Your task to perform on an android device: delete location history Image 0: 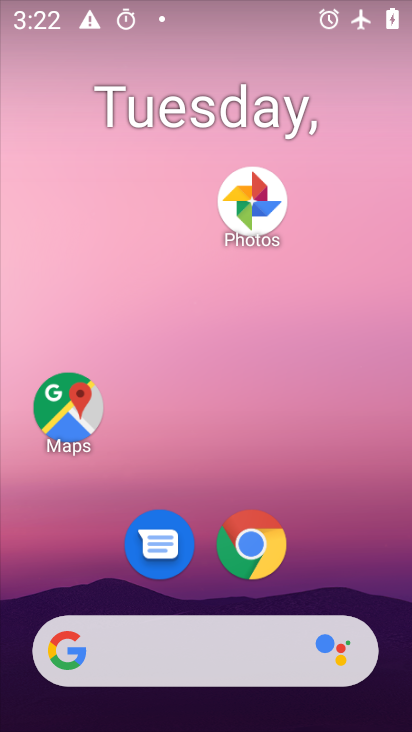
Step 0: drag from (332, 522) to (320, 58)
Your task to perform on an android device: delete location history Image 1: 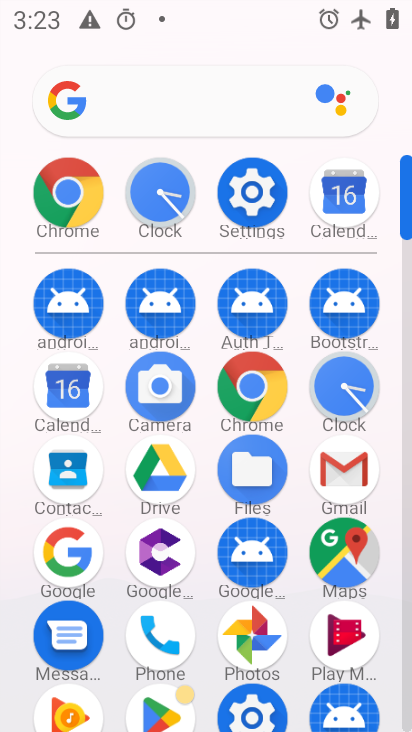
Step 1: click (344, 544)
Your task to perform on an android device: delete location history Image 2: 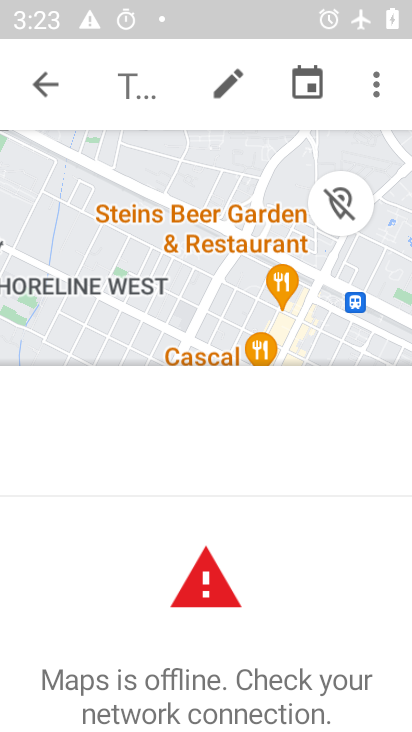
Step 2: click (52, 83)
Your task to perform on an android device: delete location history Image 3: 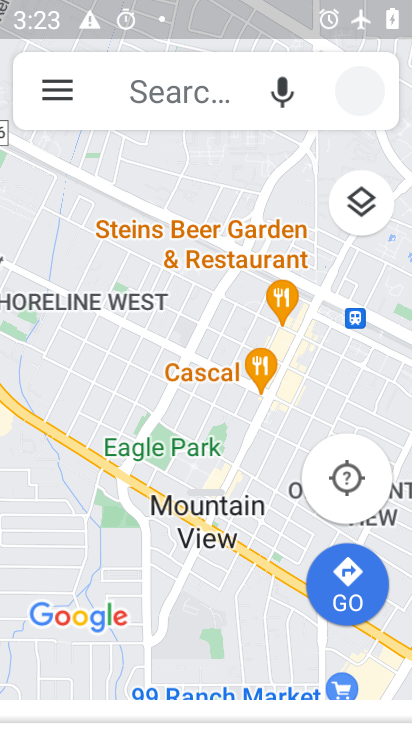
Step 3: click (52, 83)
Your task to perform on an android device: delete location history Image 4: 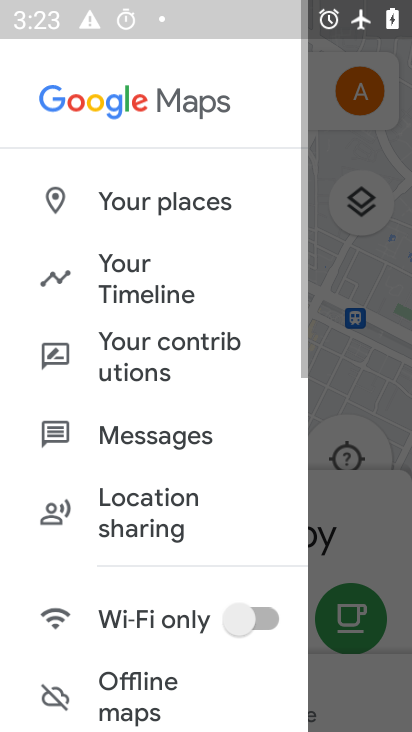
Step 4: drag from (135, 642) to (172, 184)
Your task to perform on an android device: delete location history Image 5: 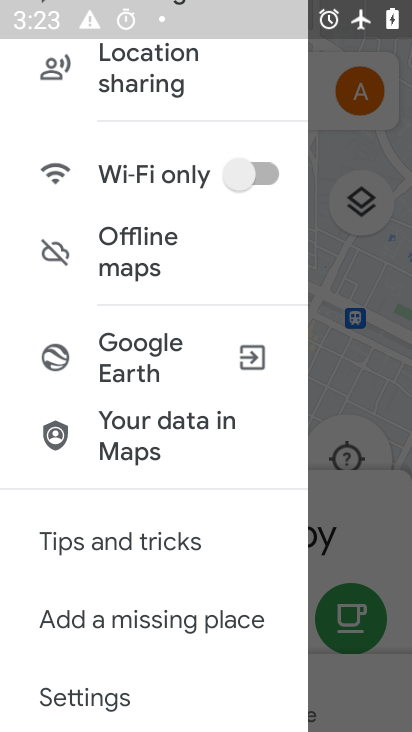
Step 5: click (114, 696)
Your task to perform on an android device: delete location history Image 6: 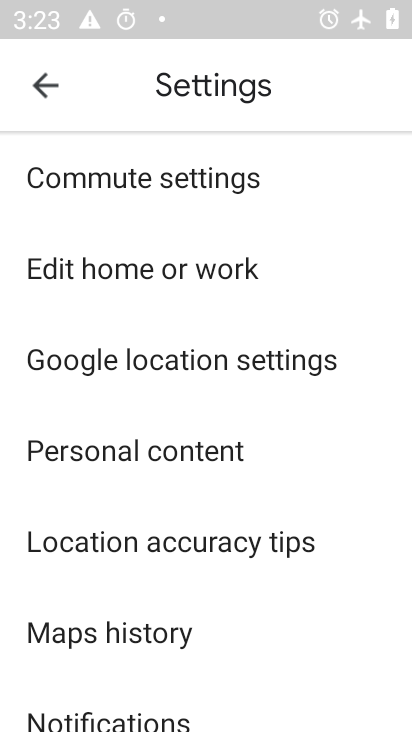
Step 6: click (129, 639)
Your task to perform on an android device: delete location history Image 7: 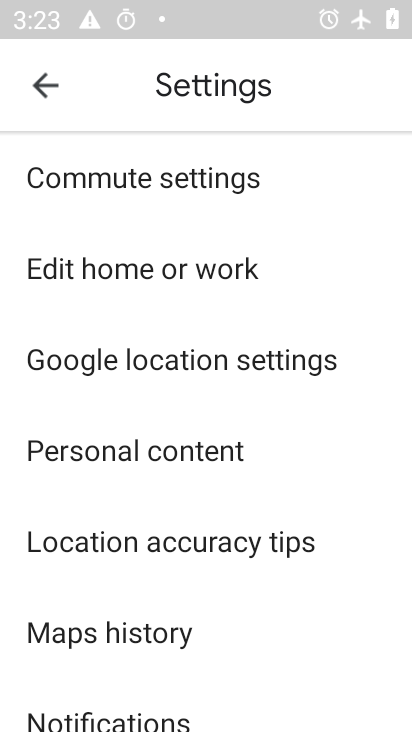
Step 7: click (137, 636)
Your task to perform on an android device: delete location history Image 8: 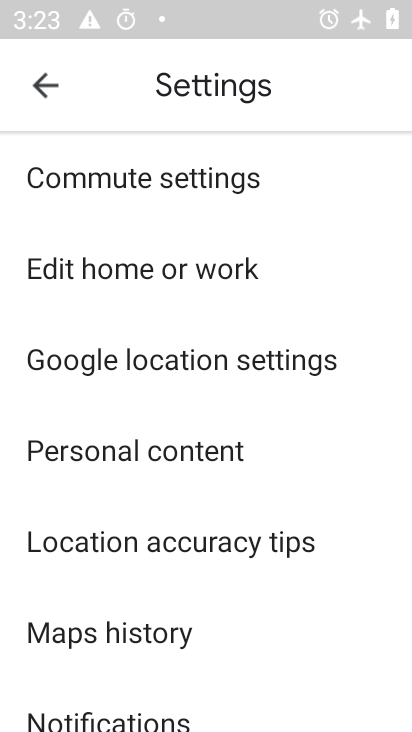
Step 8: task complete